Your task to perform on an android device: open app "TextNow: Call + Text Unlimited" Image 0: 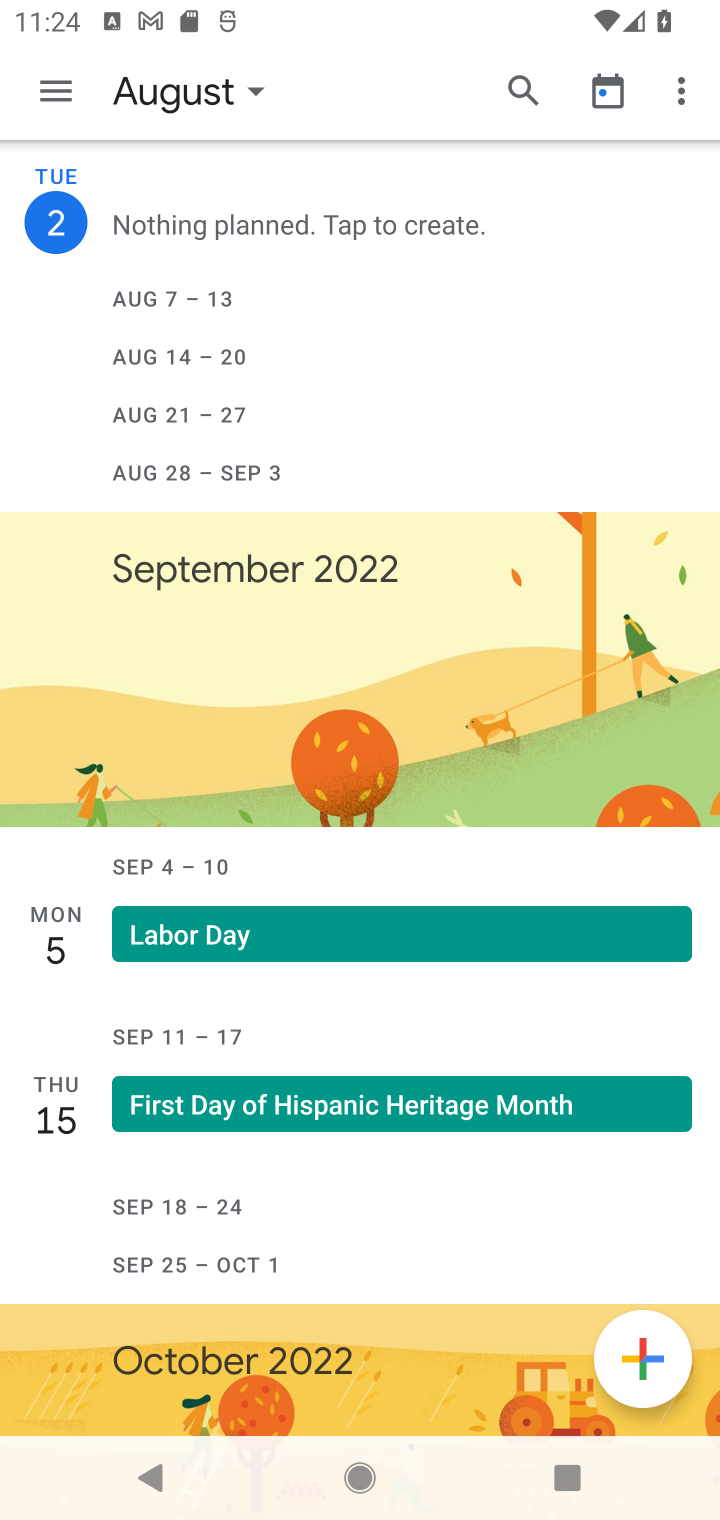
Step 0: press home button
Your task to perform on an android device: open app "TextNow: Call + Text Unlimited" Image 1: 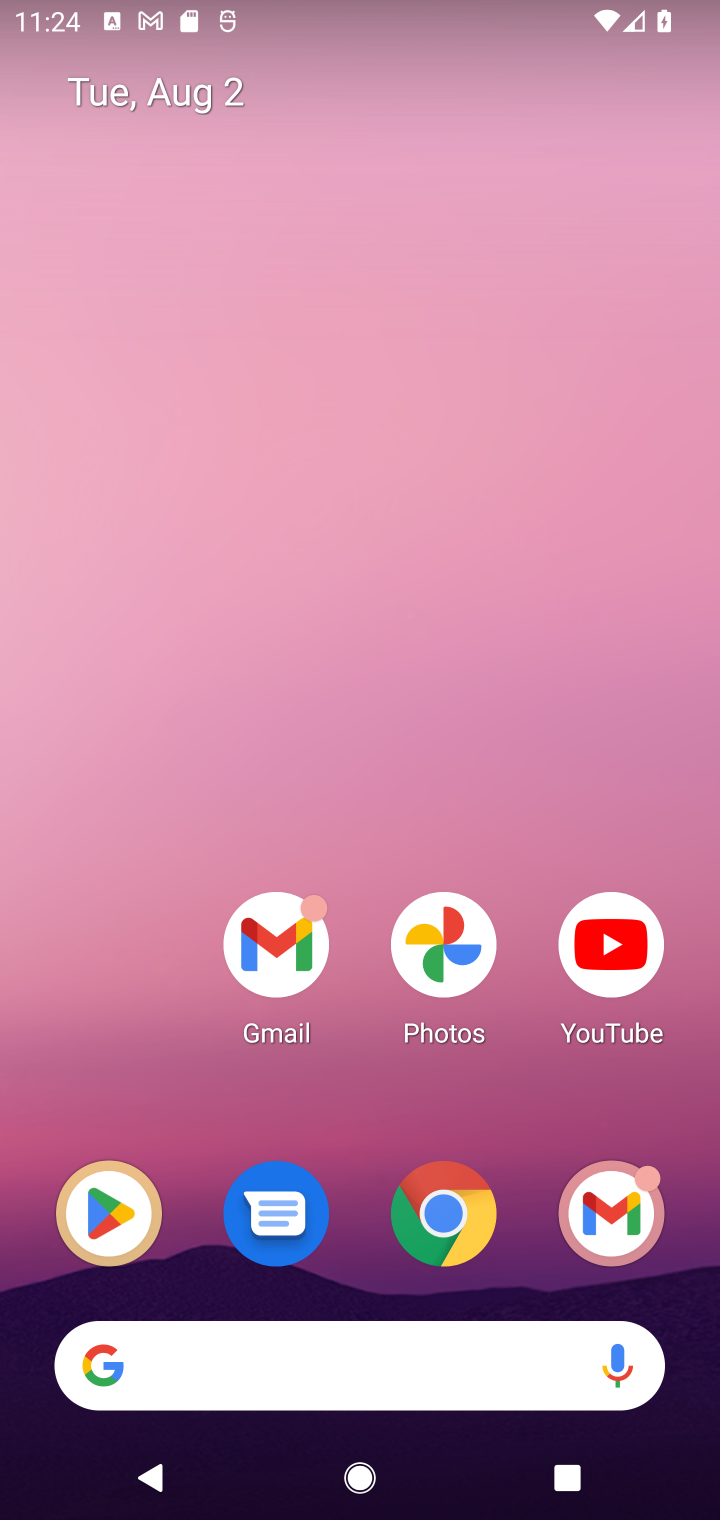
Step 1: click (85, 1221)
Your task to perform on an android device: open app "TextNow: Call + Text Unlimited" Image 2: 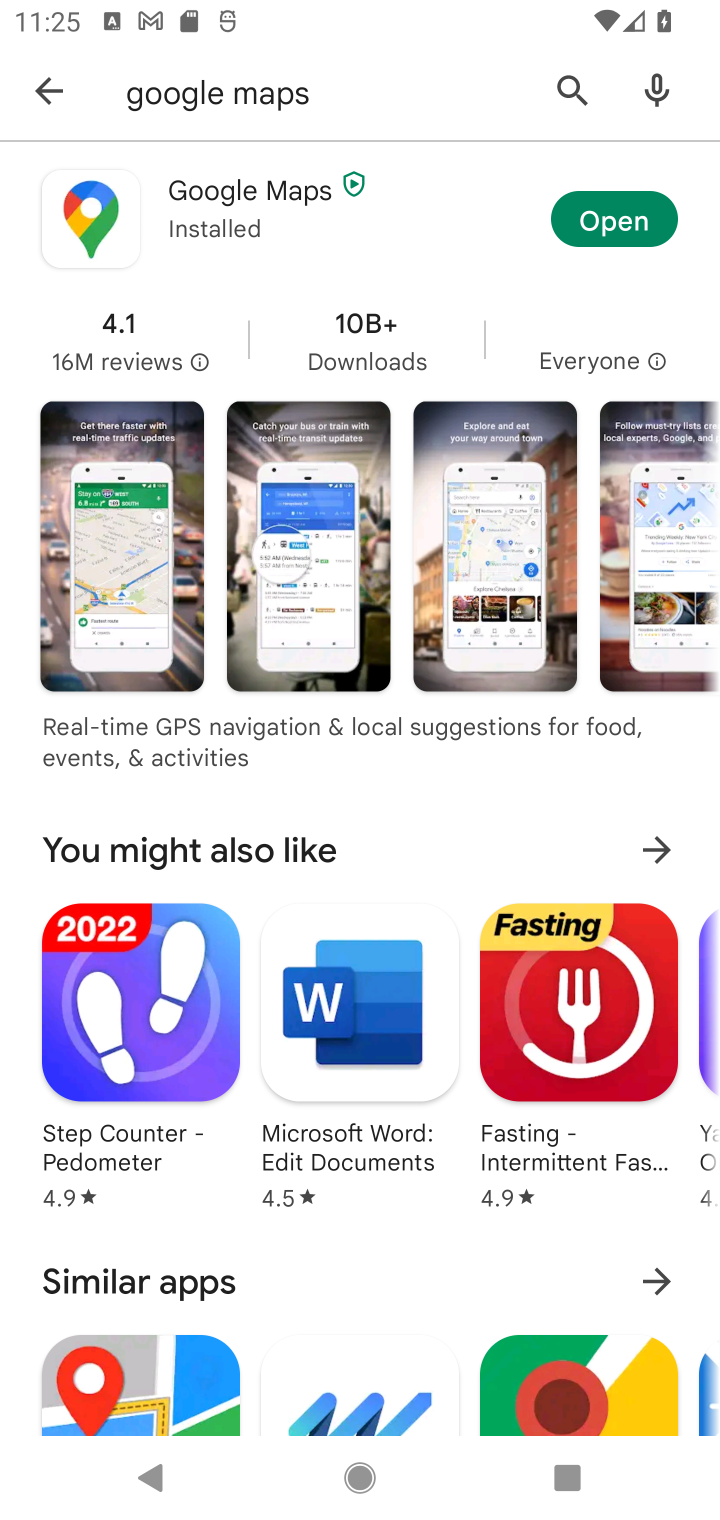
Step 2: click (593, 232)
Your task to perform on an android device: open app "TextNow: Call + Text Unlimited" Image 3: 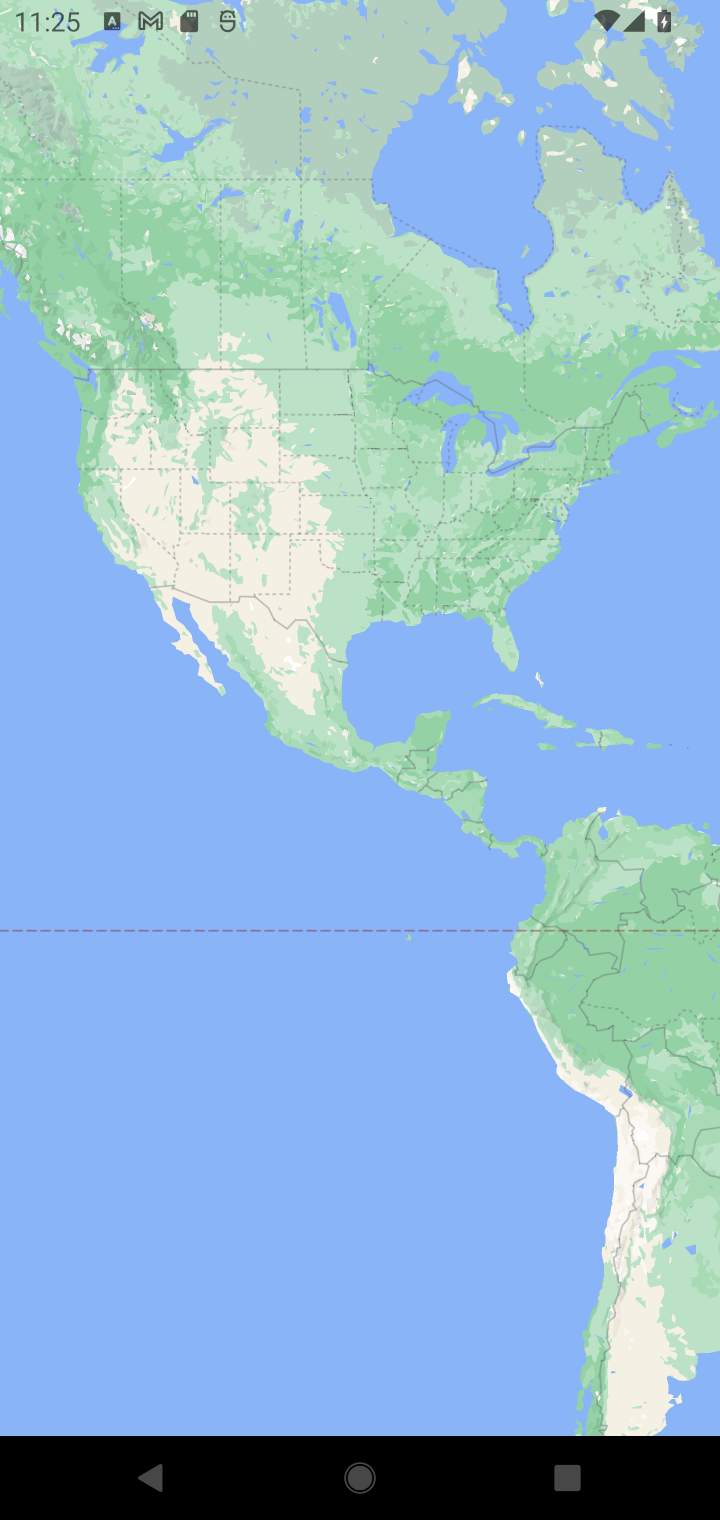
Step 3: press back button
Your task to perform on an android device: open app "TextNow: Call + Text Unlimited" Image 4: 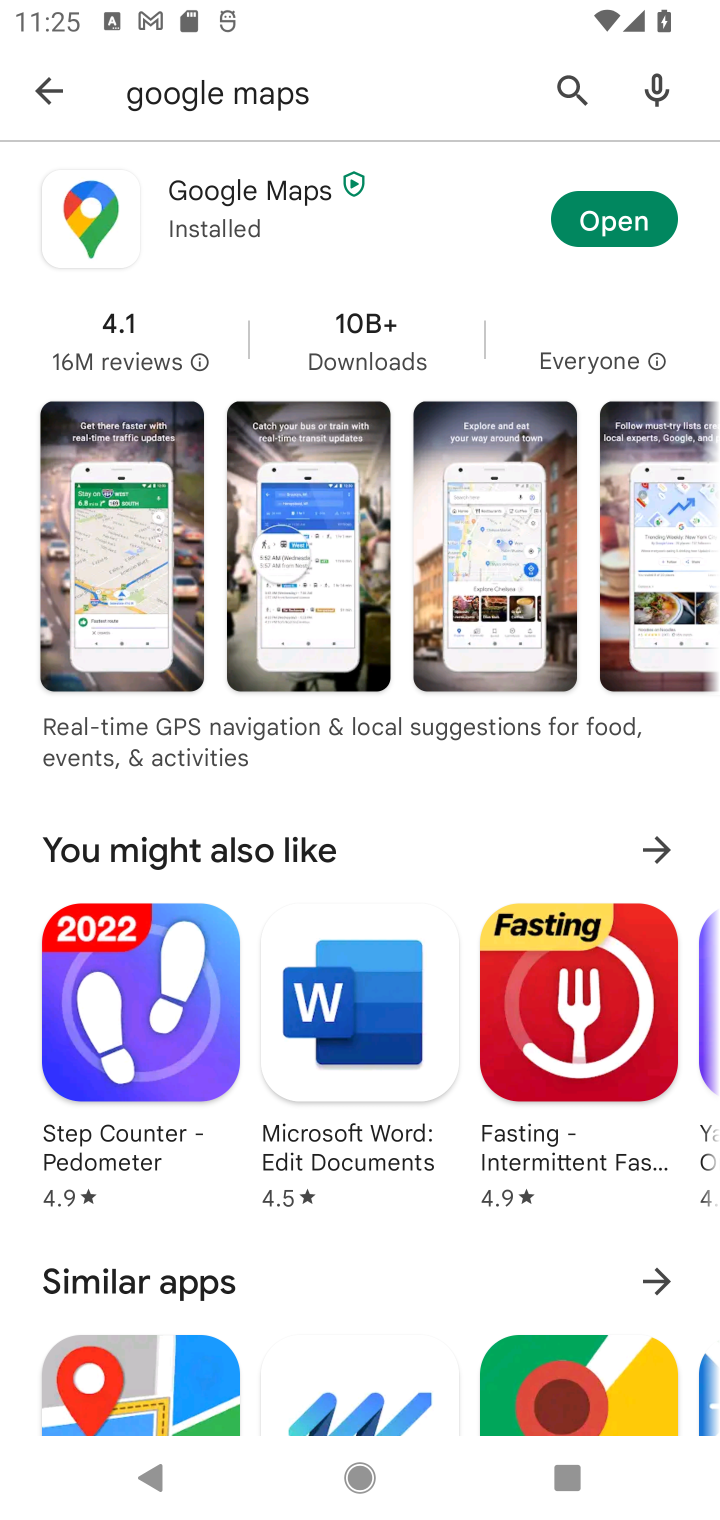
Step 4: click (44, 104)
Your task to perform on an android device: open app "TextNow: Call + Text Unlimited" Image 5: 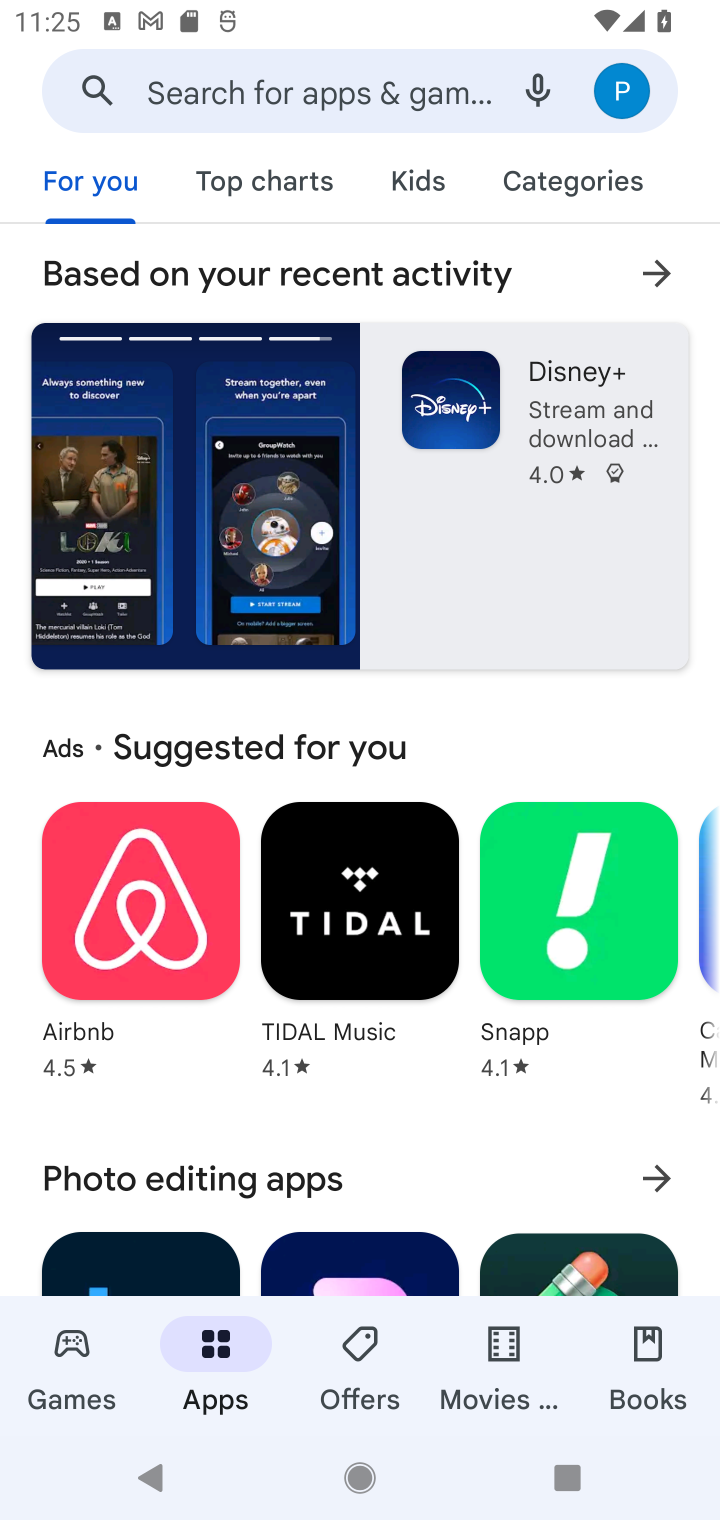
Step 5: click (370, 87)
Your task to perform on an android device: open app "TextNow: Call + Text Unlimited" Image 6: 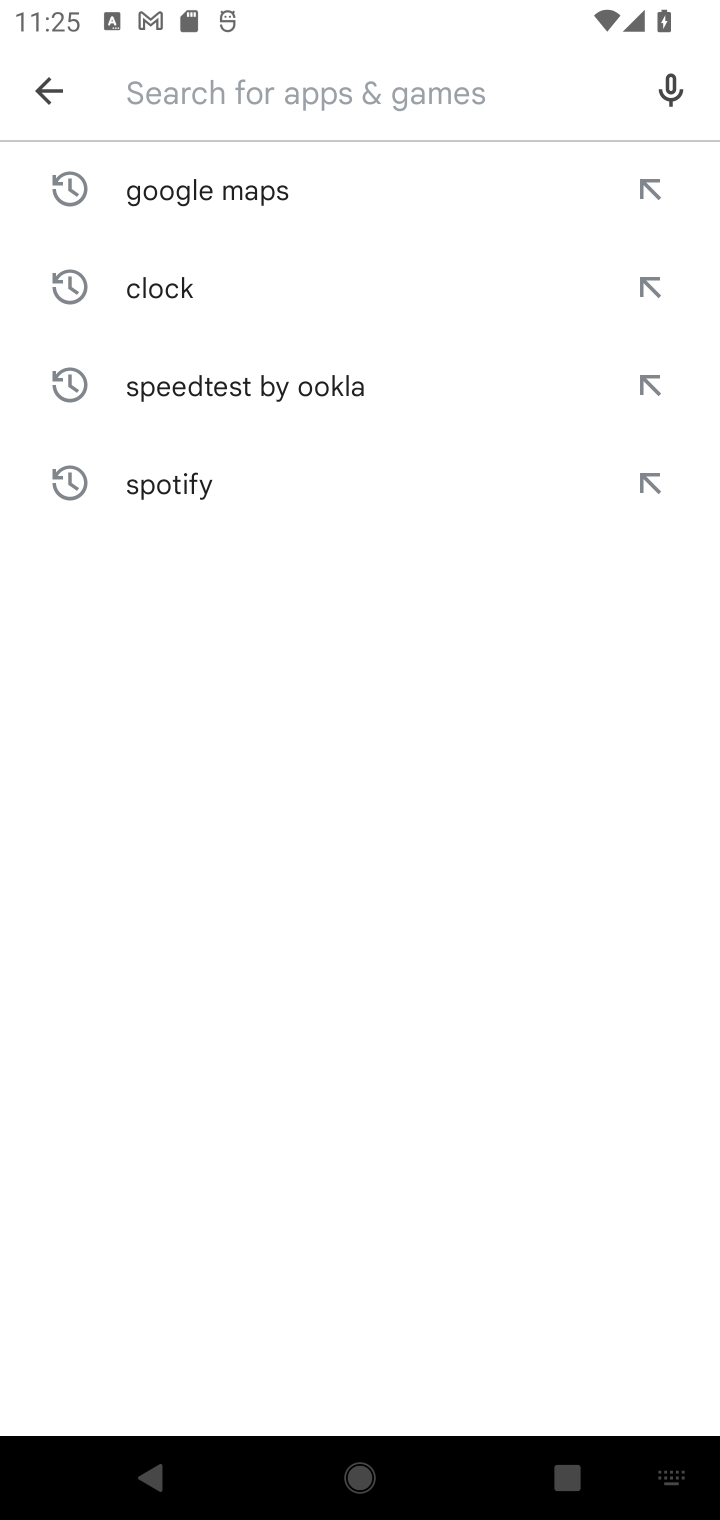
Step 6: type "TextNow: Call + Text Unlimited"
Your task to perform on an android device: open app "TextNow: Call + Text Unlimited" Image 7: 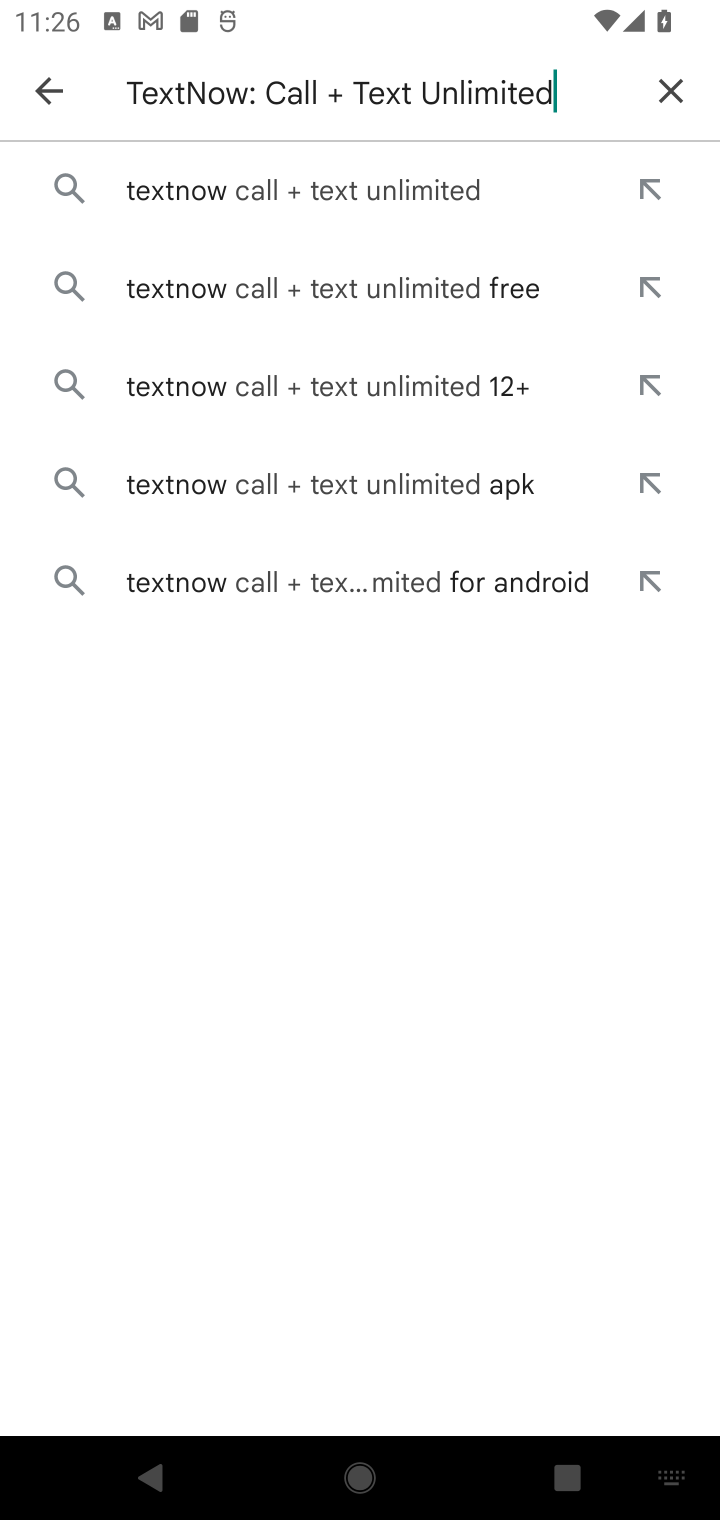
Step 7: click (435, 172)
Your task to perform on an android device: open app "TextNow: Call + Text Unlimited" Image 8: 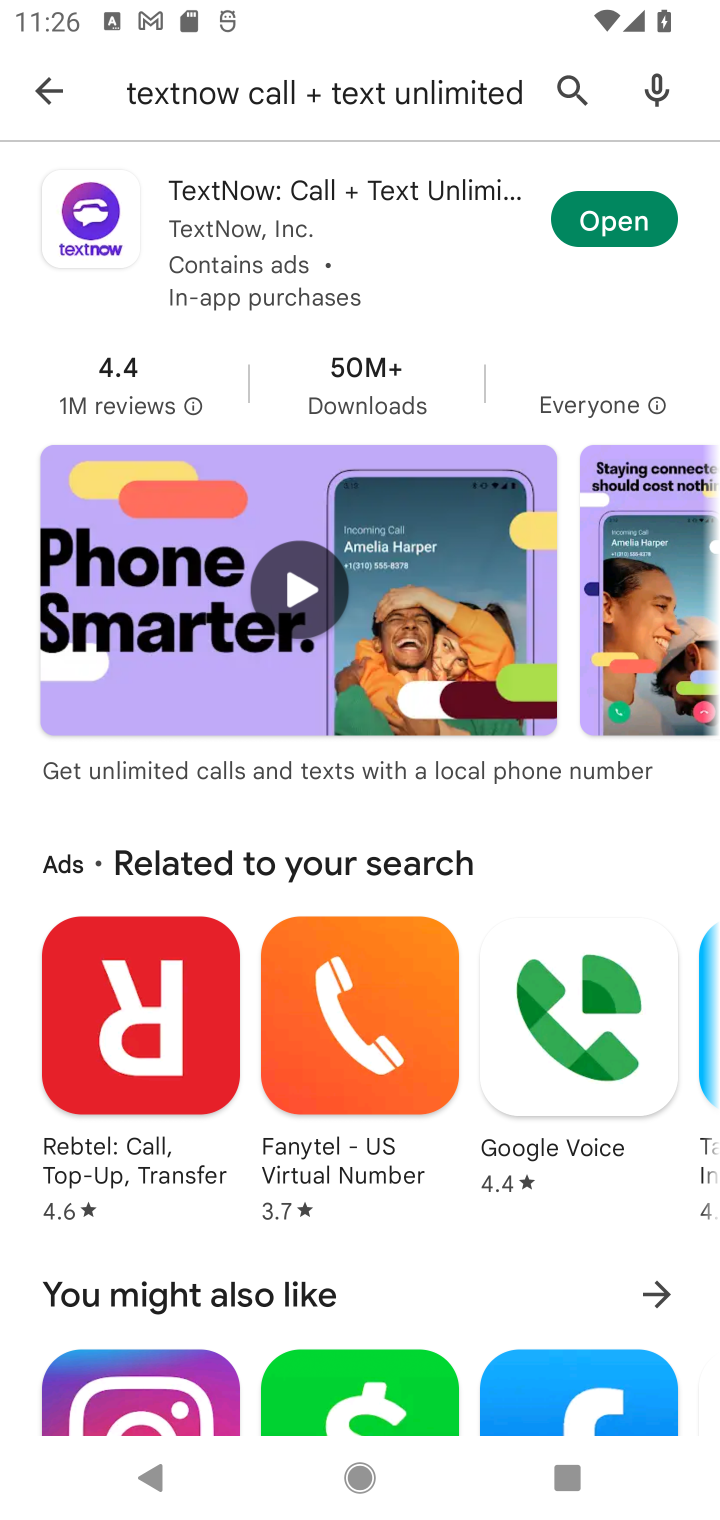
Step 8: click (630, 224)
Your task to perform on an android device: open app "TextNow: Call + Text Unlimited" Image 9: 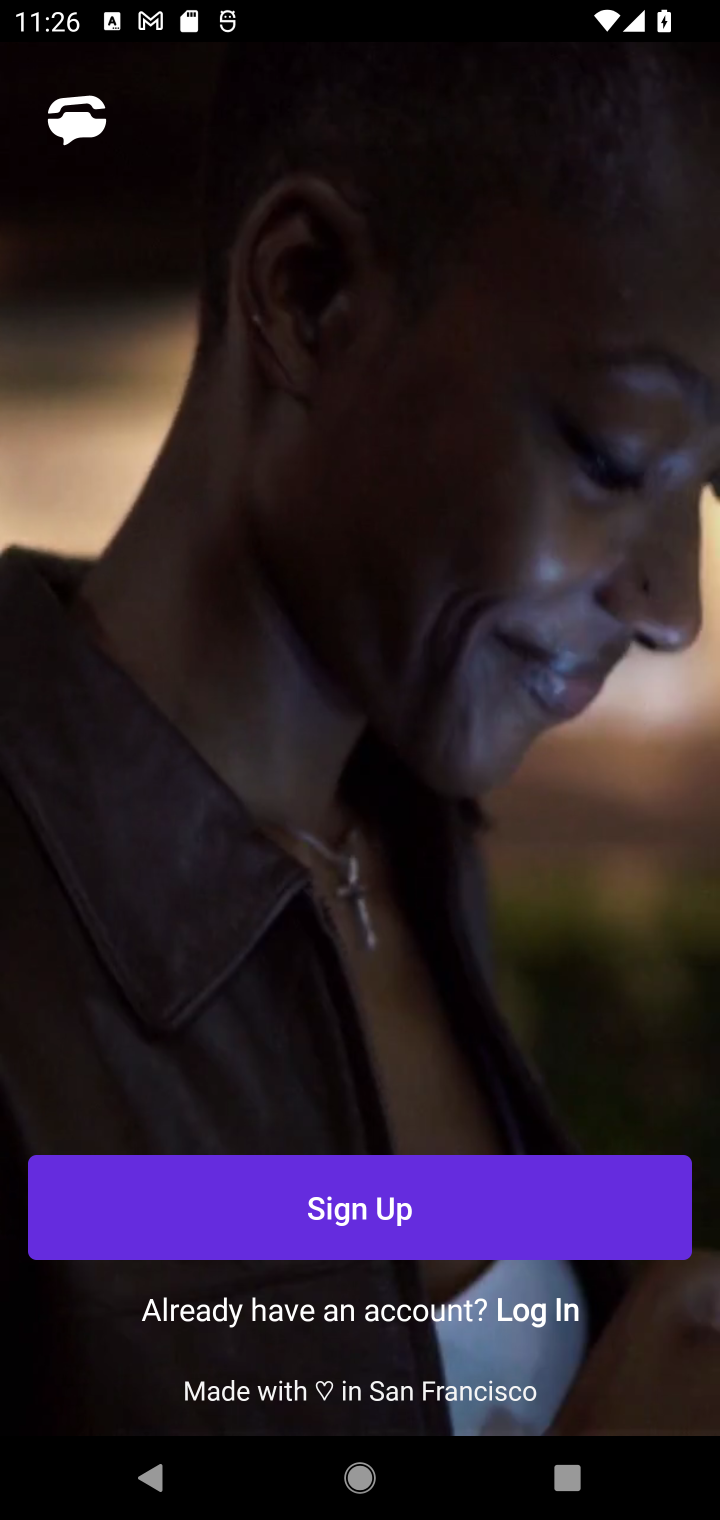
Step 9: task complete